Your task to perform on an android device: Show me the alarms in the clock app Image 0: 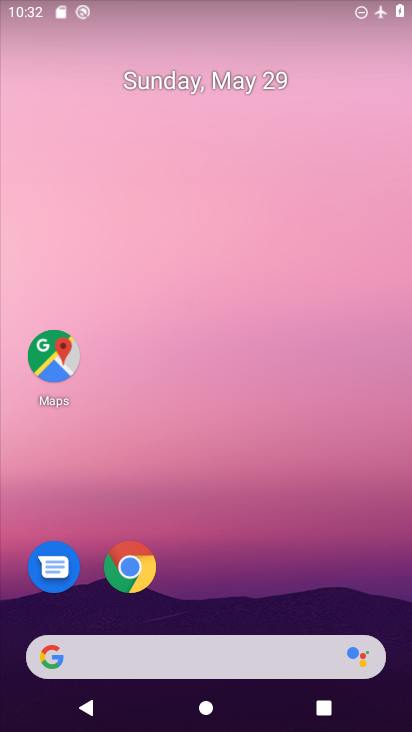
Step 0: drag from (326, 602) to (289, 155)
Your task to perform on an android device: Show me the alarms in the clock app Image 1: 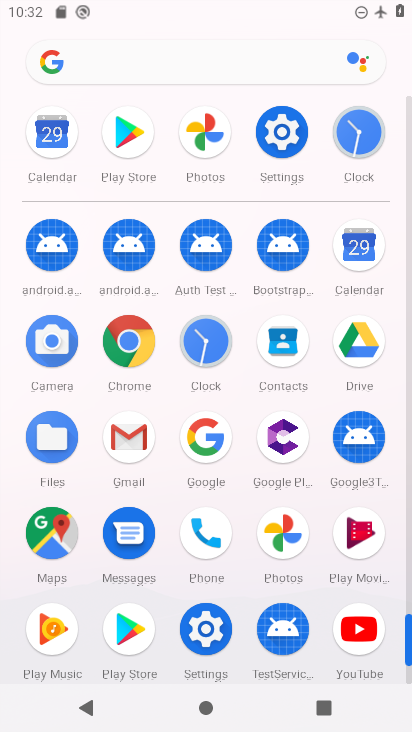
Step 1: click (206, 339)
Your task to perform on an android device: Show me the alarms in the clock app Image 2: 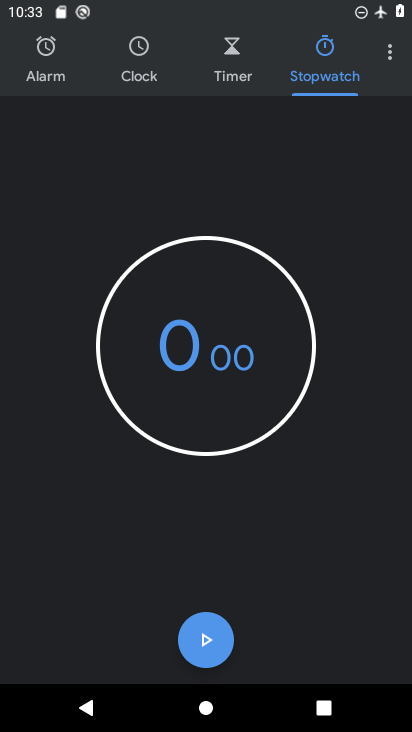
Step 2: click (40, 55)
Your task to perform on an android device: Show me the alarms in the clock app Image 3: 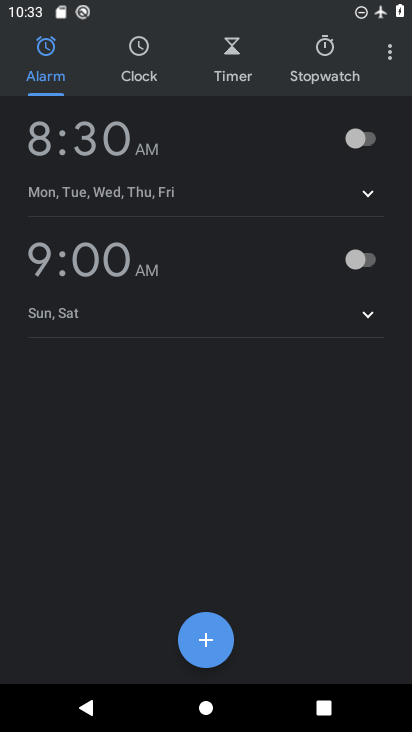
Step 3: task complete